Your task to perform on an android device: open a bookmark in the chrome app Image 0: 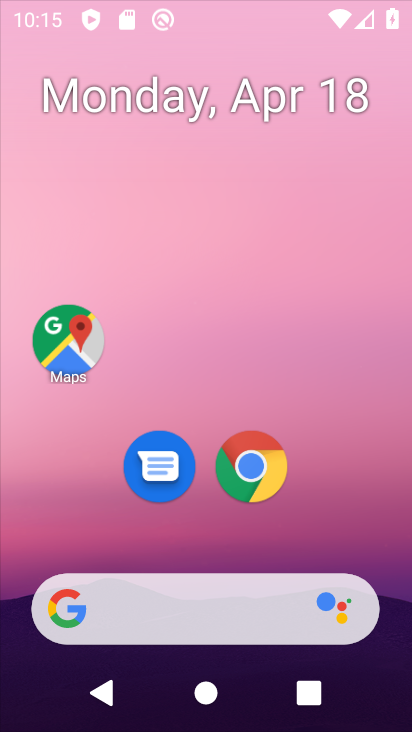
Step 0: click (274, 133)
Your task to perform on an android device: open a bookmark in the chrome app Image 1: 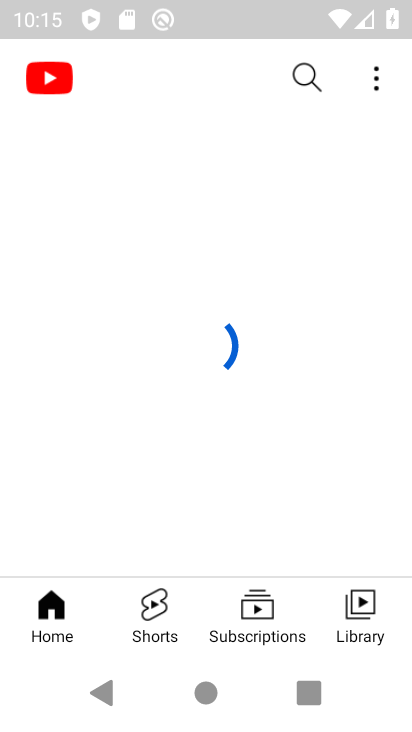
Step 1: press home button
Your task to perform on an android device: open a bookmark in the chrome app Image 2: 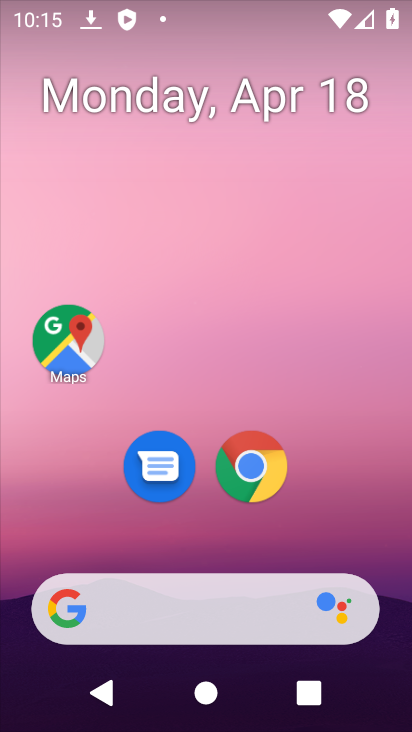
Step 2: drag from (256, 605) to (304, 88)
Your task to perform on an android device: open a bookmark in the chrome app Image 3: 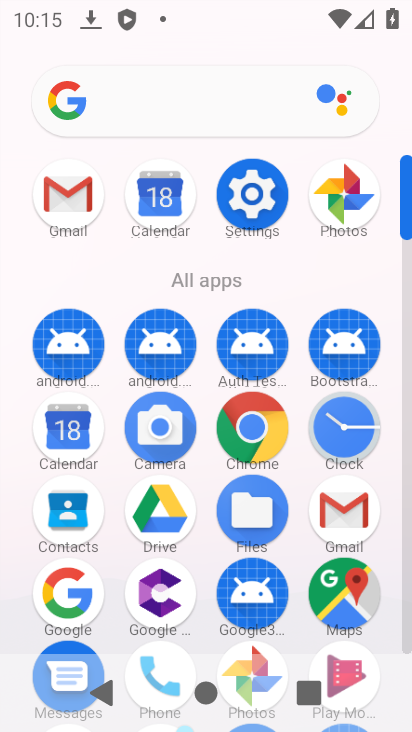
Step 3: click (265, 427)
Your task to perform on an android device: open a bookmark in the chrome app Image 4: 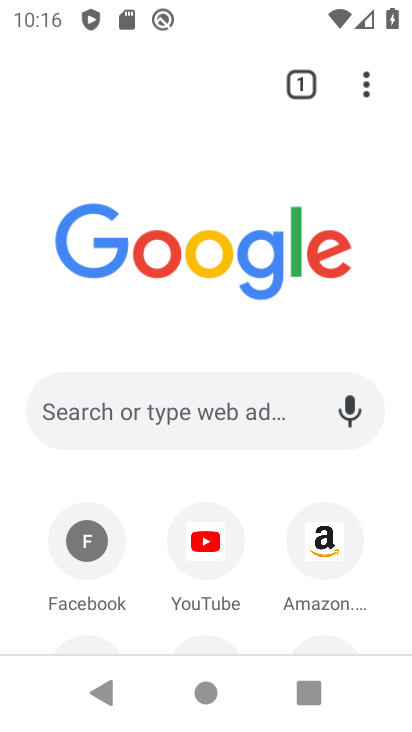
Step 4: click (360, 98)
Your task to perform on an android device: open a bookmark in the chrome app Image 5: 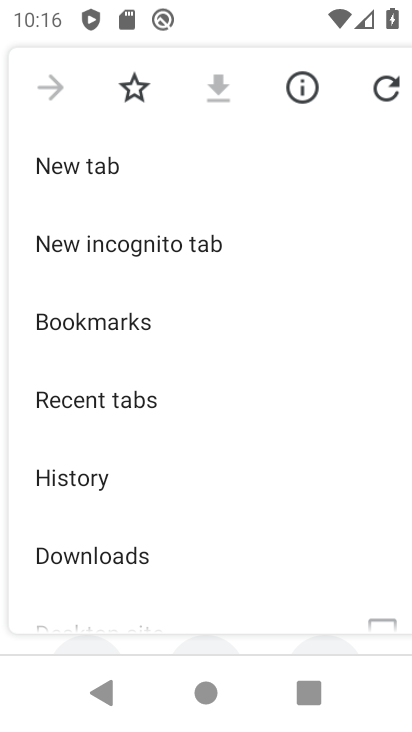
Step 5: click (120, 314)
Your task to perform on an android device: open a bookmark in the chrome app Image 6: 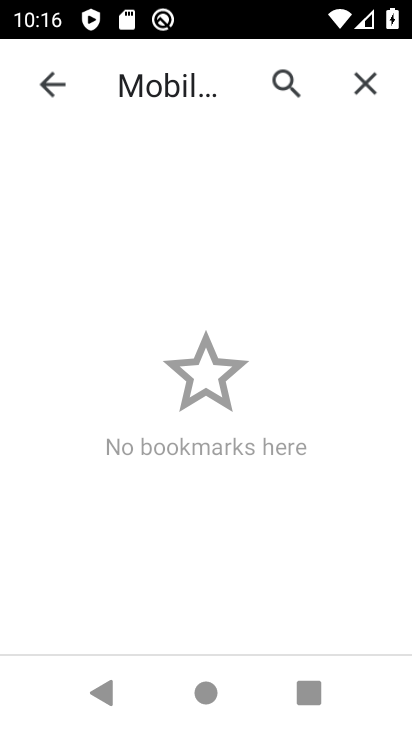
Step 6: task complete